Your task to perform on an android device: change the clock display to digital Image 0: 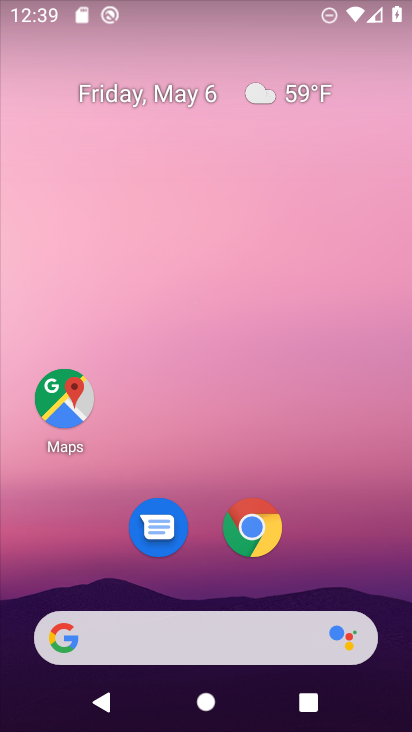
Step 0: drag from (339, 553) to (211, 20)
Your task to perform on an android device: change the clock display to digital Image 1: 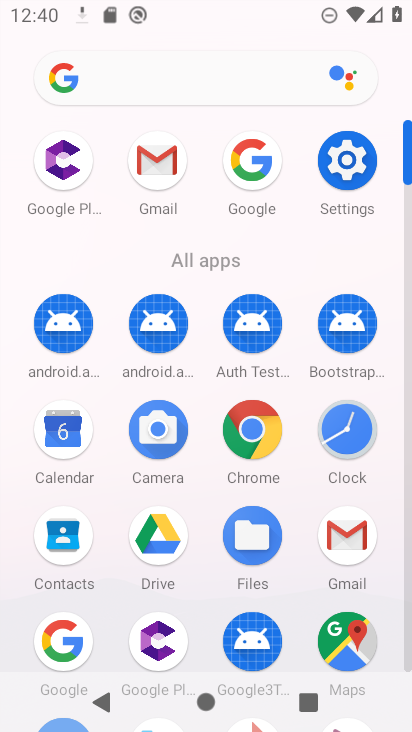
Step 1: click (346, 430)
Your task to perform on an android device: change the clock display to digital Image 2: 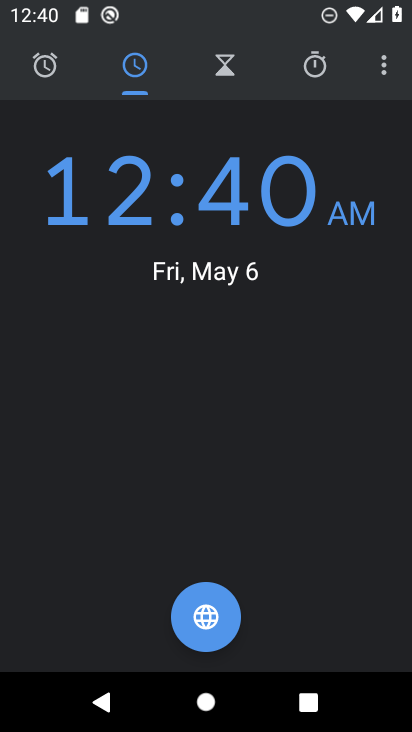
Step 2: click (388, 67)
Your task to perform on an android device: change the clock display to digital Image 3: 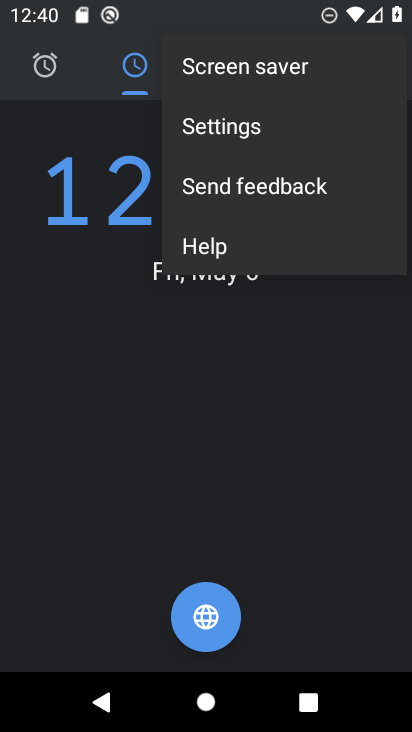
Step 3: click (256, 128)
Your task to perform on an android device: change the clock display to digital Image 4: 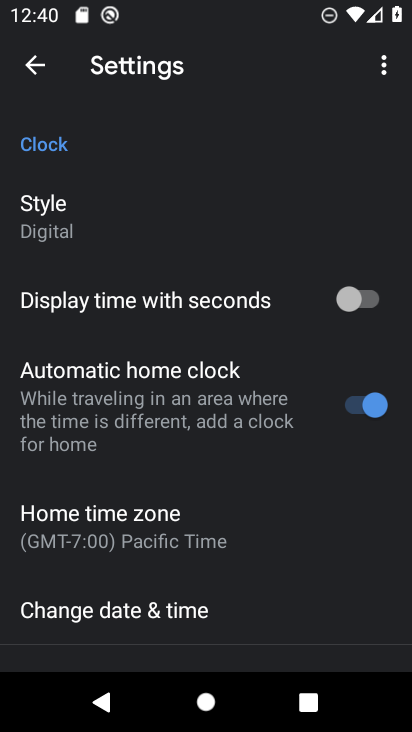
Step 4: click (81, 224)
Your task to perform on an android device: change the clock display to digital Image 5: 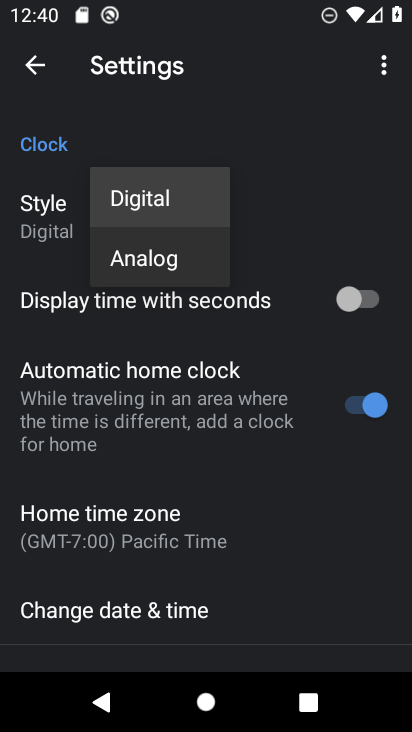
Step 5: click (112, 211)
Your task to perform on an android device: change the clock display to digital Image 6: 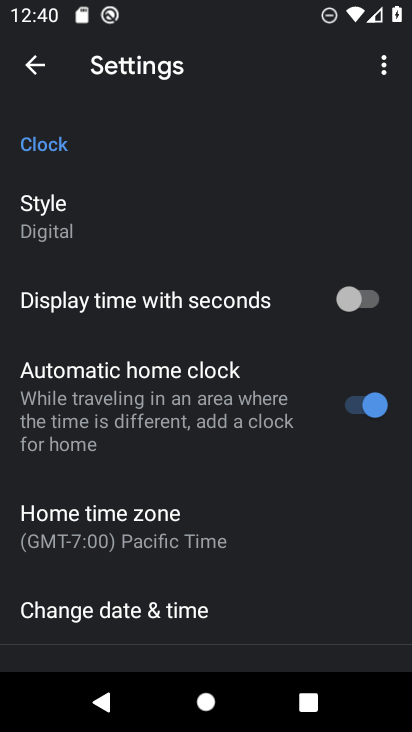
Step 6: task complete